Your task to perform on an android device: Open location settings Image 0: 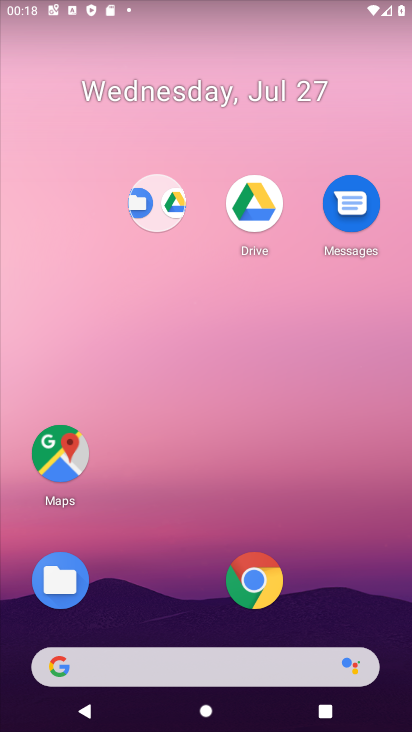
Step 0: drag from (190, 627) to (215, 170)
Your task to perform on an android device: Open location settings Image 1: 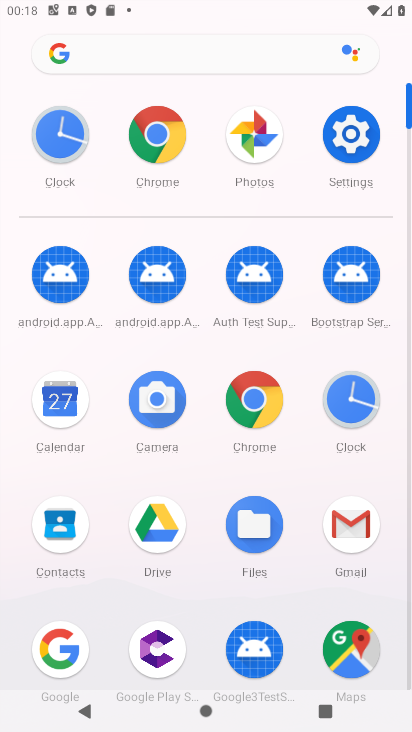
Step 1: click (345, 147)
Your task to perform on an android device: Open location settings Image 2: 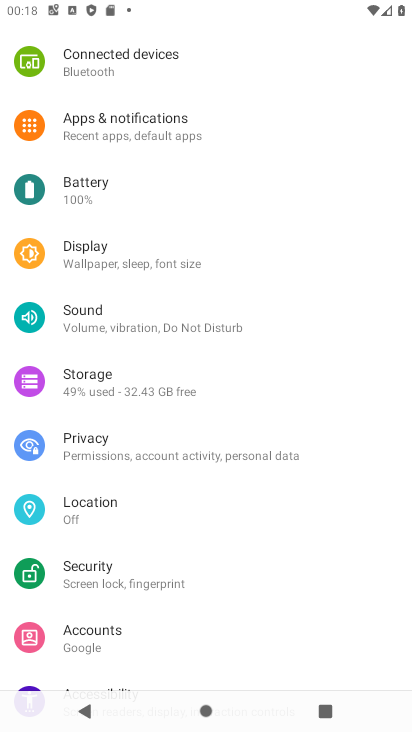
Step 2: click (85, 520)
Your task to perform on an android device: Open location settings Image 3: 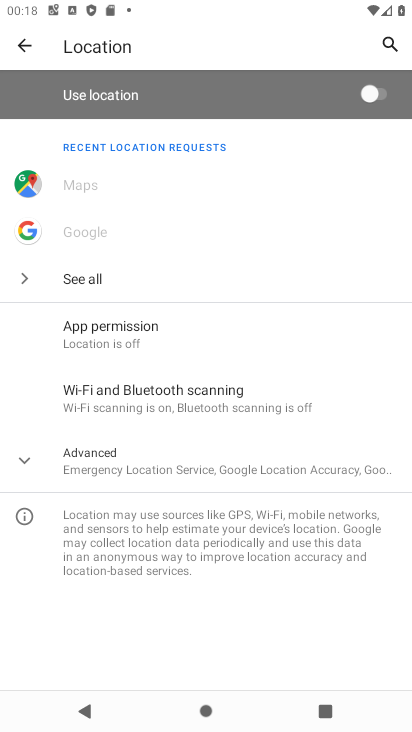
Step 3: task complete